Your task to perform on an android device: toggle wifi Image 0: 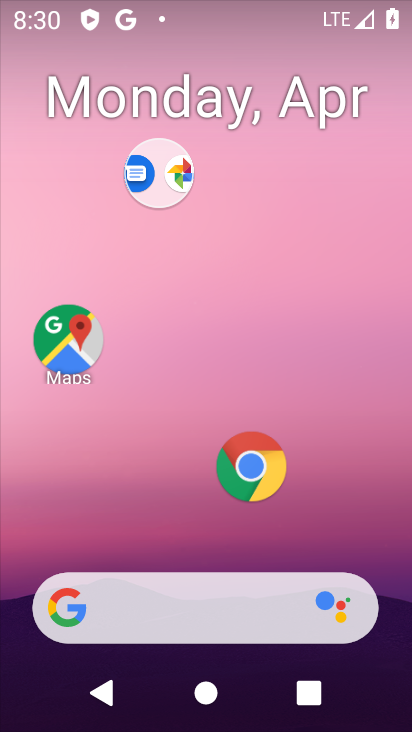
Step 0: drag from (186, 513) to (251, 121)
Your task to perform on an android device: toggle wifi Image 1: 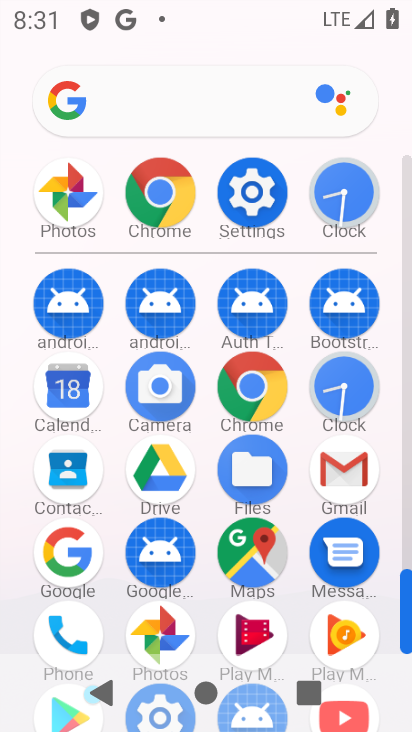
Step 1: click (240, 185)
Your task to perform on an android device: toggle wifi Image 2: 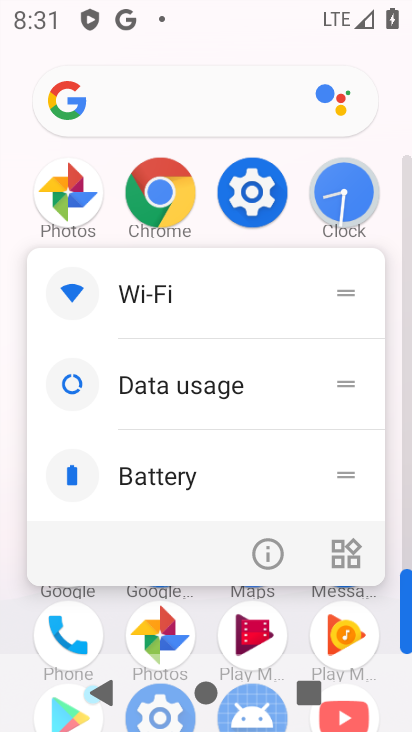
Step 2: click (200, 302)
Your task to perform on an android device: toggle wifi Image 3: 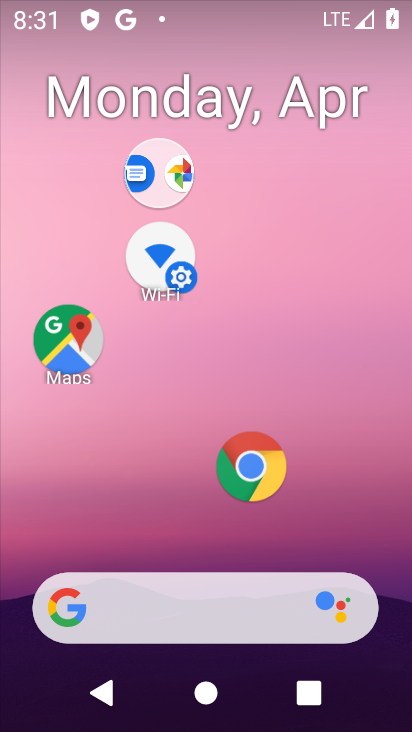
Step 3: drag from (190, 488) to (327, 123)
Your task to perform on an android device: toggle wifi Image 4: 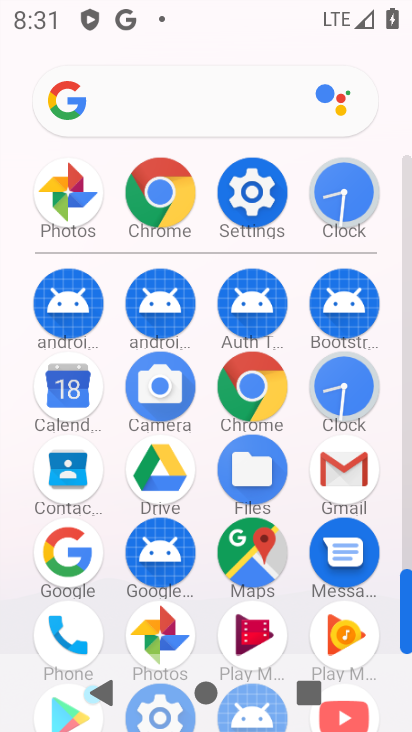
Step 4: click (265, 184)
Your task to perform on an android device: toggle wifi Image 5: 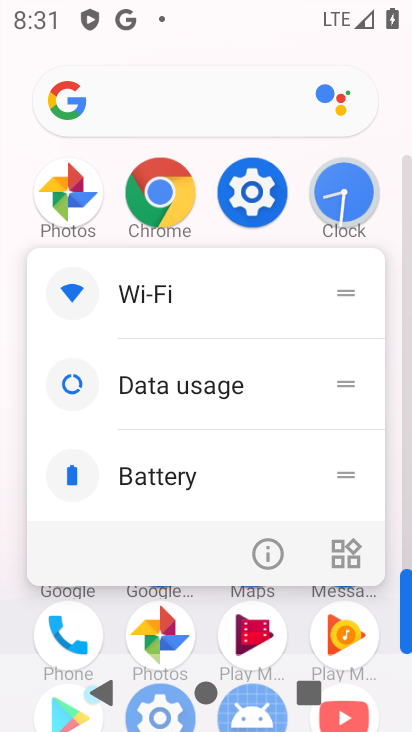
Step 5: click (268, 548)
Your task to perform on an android device: toggle wifi Image 6: 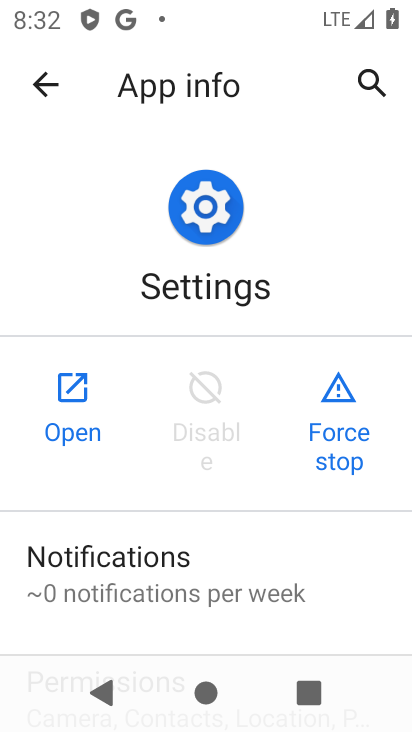
Step 6: click (61, 391)
Your task to perform on an android device: toggle wifi Image 7: 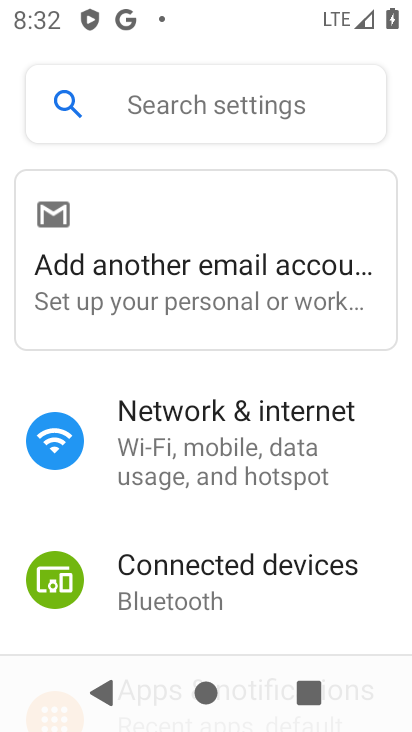
Step 7: click (182, 451)
Your task to perform on an android device: toggle wifi Image 8: 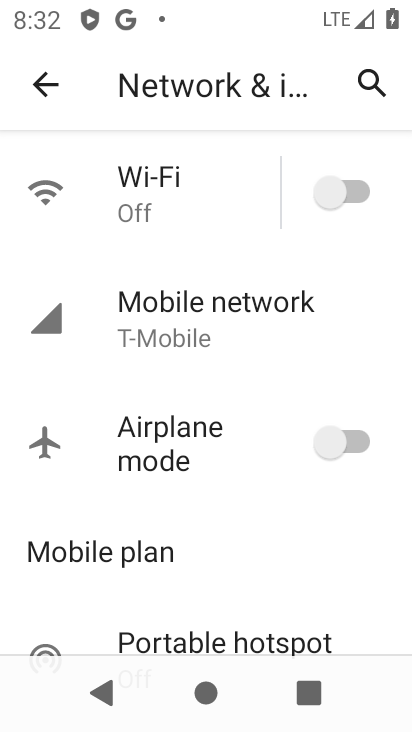
Step 8: click (303, 195)
Your task to perform on an android device: toggle wifi Image 9: 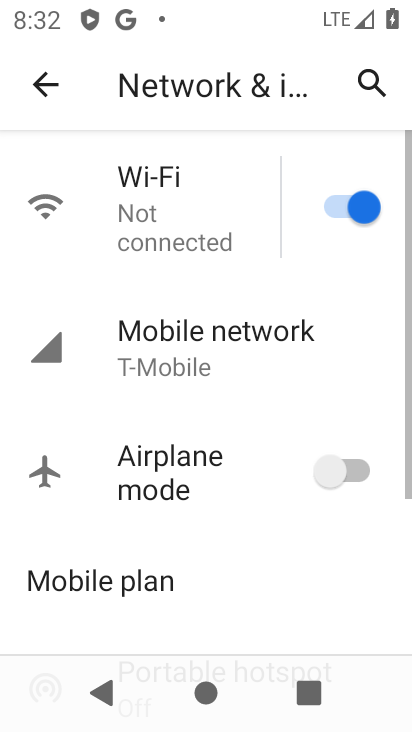
Step 9: task complete